Your task to perform on an android device: choose inbox layout in the gmail app Image 0: 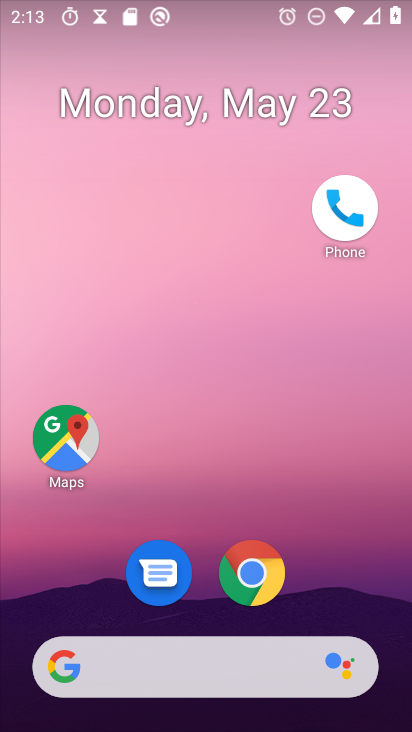
Step 0: press home button
Your task to perform on an android device: choose inbox layout in the gmail app Image 1: 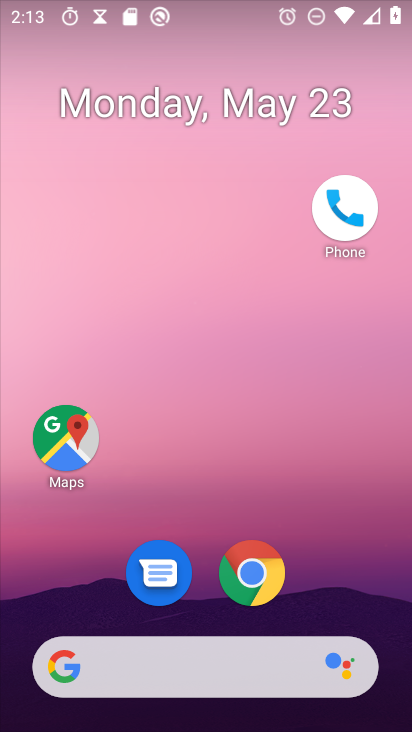
Step 1: drag from (156, 675) to (286, 193)
Your task to perform on an android device: choose inbox layout in the gmail app Image 2: 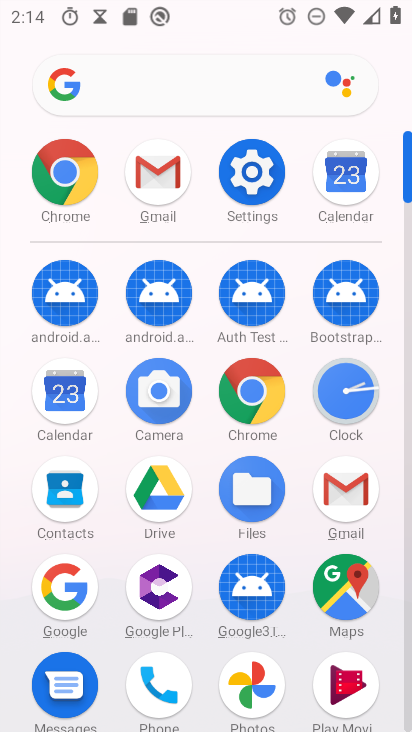
Step 2: click (155, 180)
Your task to perform on an android device: choose inbox layout in the gmail app Image 3: 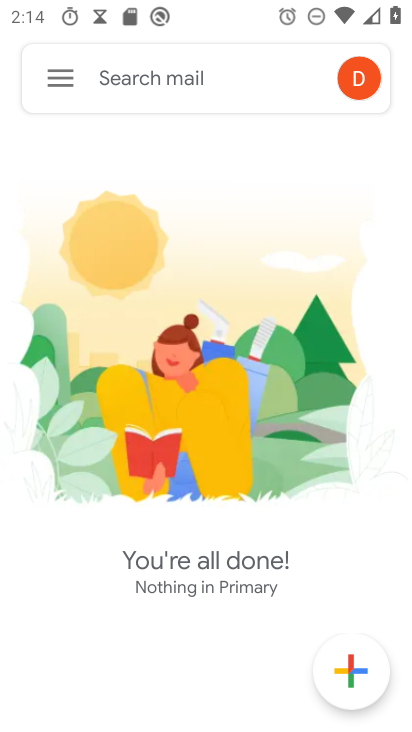
Step 3: click (56, 80)
Your task to perform on an android device: choose inbox layout in the gmail app Image 4: 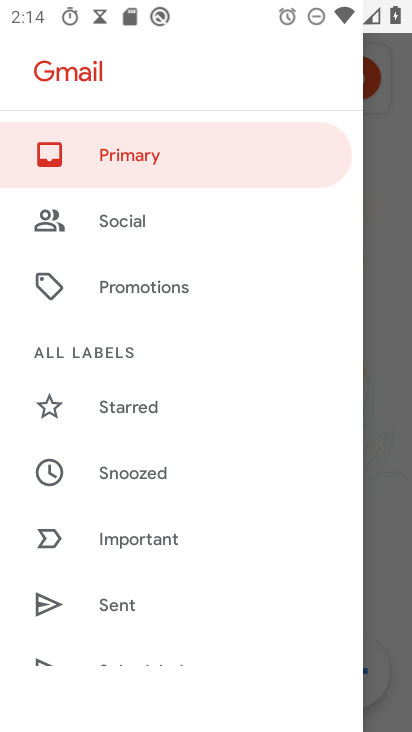
Step 4: drag from (202, 647) to (228, 117)
Your task to perform on an android device: choose inbox layout in the gmail app Image 5: 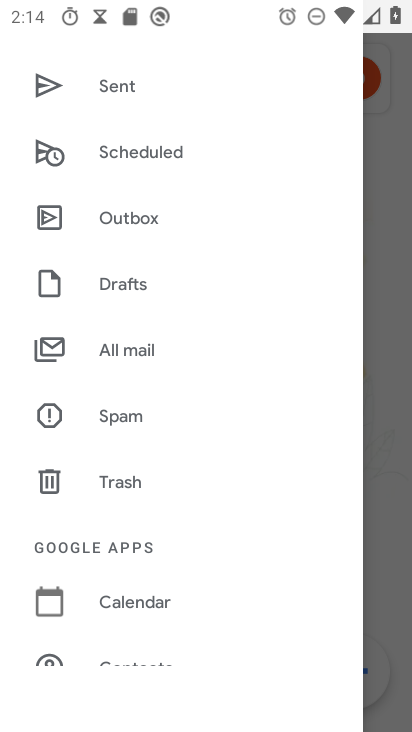
Step 5: drag from (203, 591) to (288, 79)
Your task to perform on an android device: choose inbox layout in the gmail app Image 6: 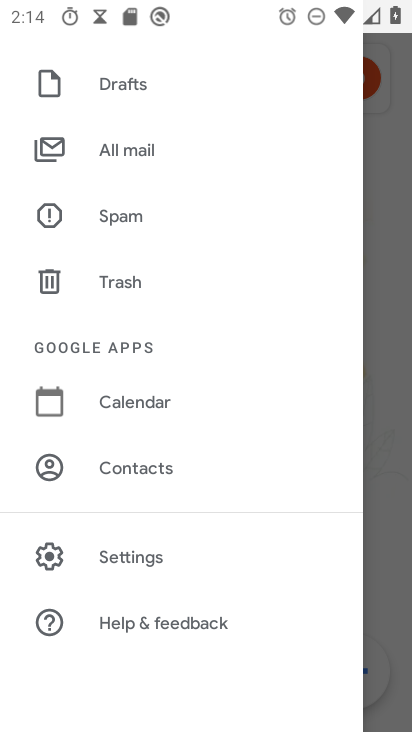
Step 6: click (151, 556)
Your task to perform on an android device: choose inbox layout in the gmail app Image 7: 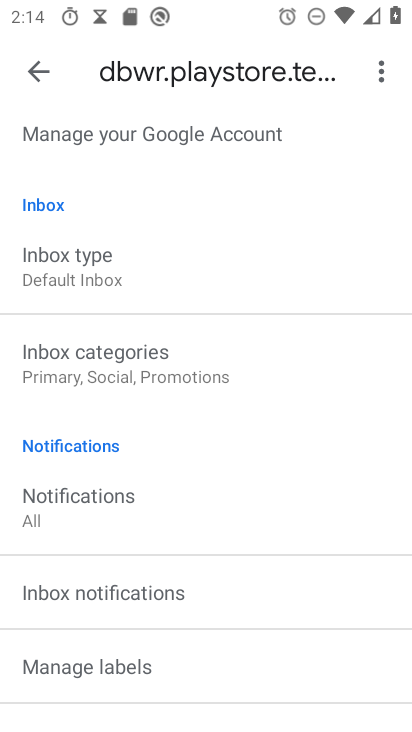
Step 7: click (62, 264)
Your task to perform on an android device: choose inbox layout in the gmail app Image 8: 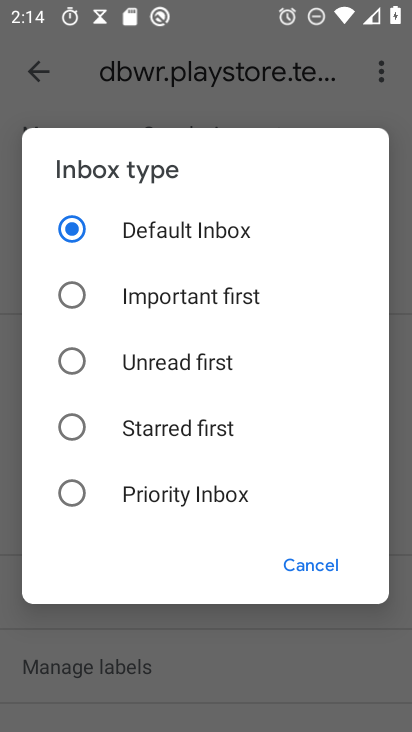
Step 8: click (66, 354)
Your task to perform on an android device: choose inbox layout in the gmail app Image 9: 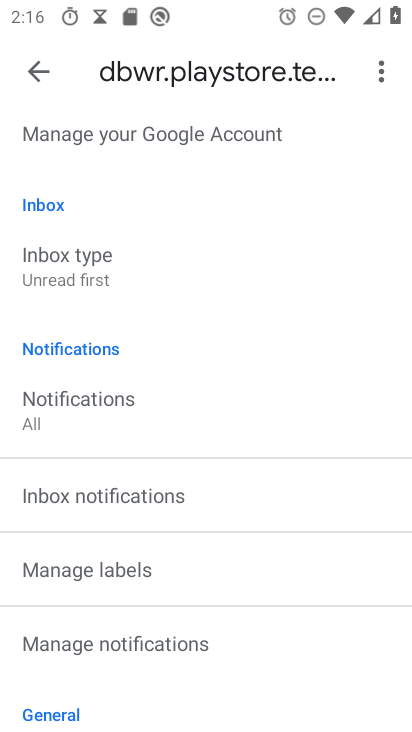
Step 9: task complete